Your task to perform on an android device: Open calendar and show me the third week of next month Image 0: 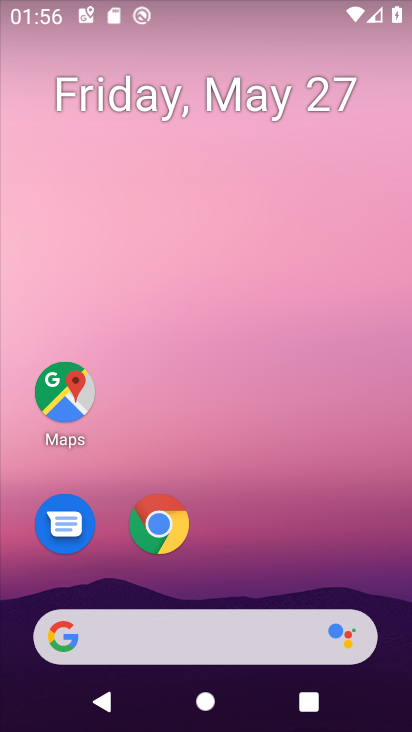
Step 0: drag from (249, 531) to (228, 58)
Your task to perform on an android device: Open calendar and show me the third week of next month Image 1: 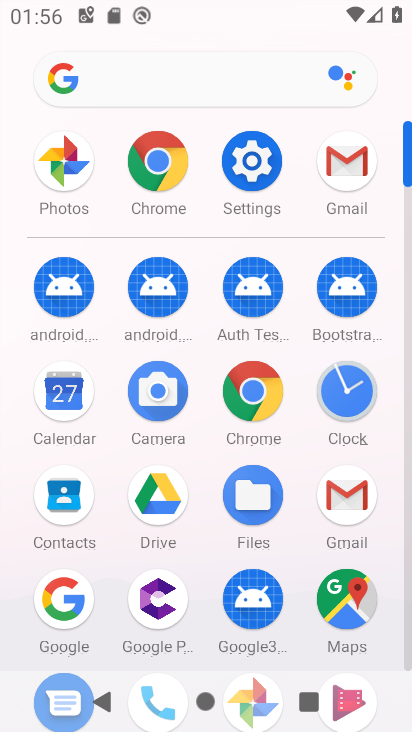
Step 1: click (72, 389)
Your task to perform on an android device: Open calendar and show me the third week of next month Image 2: 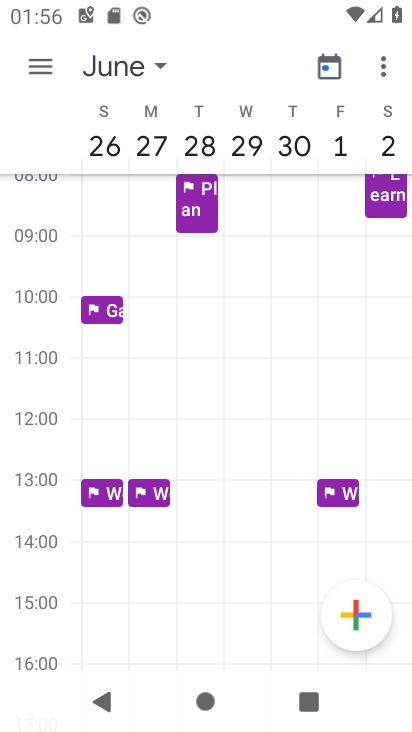
Step 2: task complete